Your task to perform on an android device: turn pop-ups on in chrome Image 0: 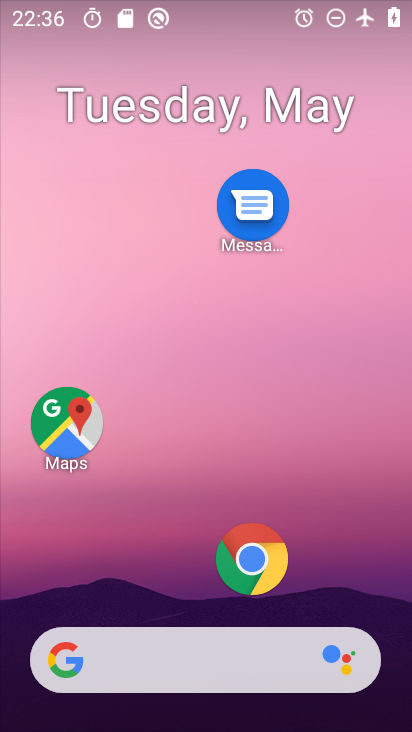
Step 0: click (242, 560)
Your task to perform on an android device: turn pop-ups on in chrome Image 1: 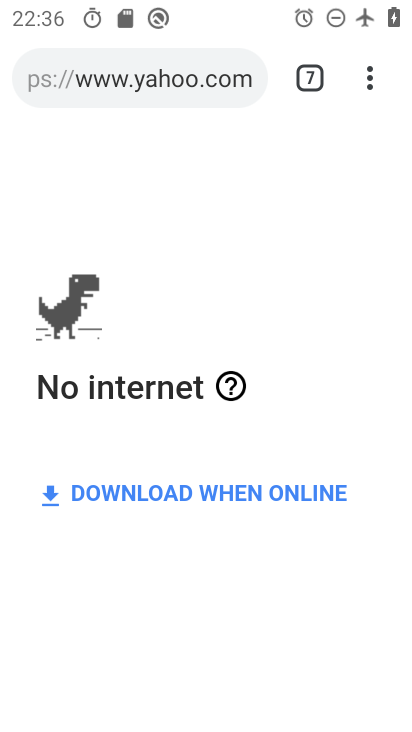
Step 1: drag from (367, 85) to (170, 630)
Your task to perform on an android device: turn pop-ups on in chrome Image 2: 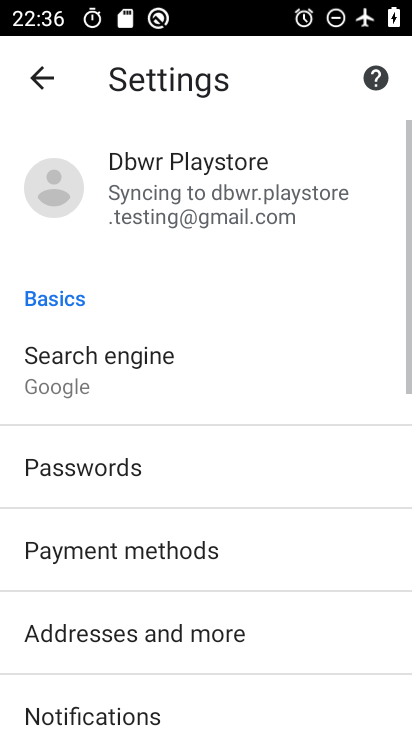
Step 2: drag from (209, 638) to (192, 212)
Your task to perform on an android device: turn pop-ups on in chrome Image 3: 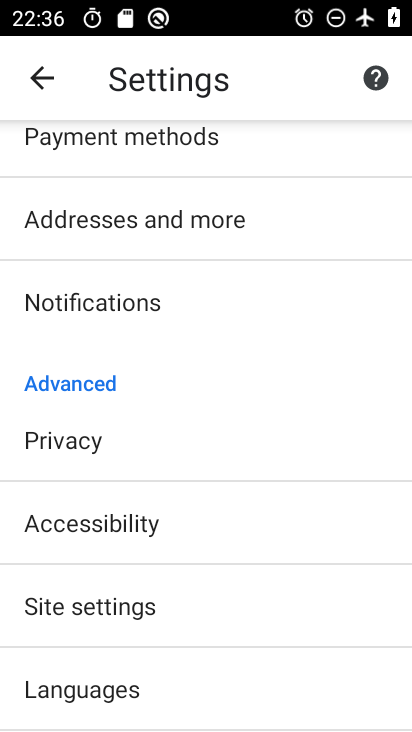
Step 3: click (164, 608)
Your task to perform on an android device: turn pop-ups on in chrome Image 4: 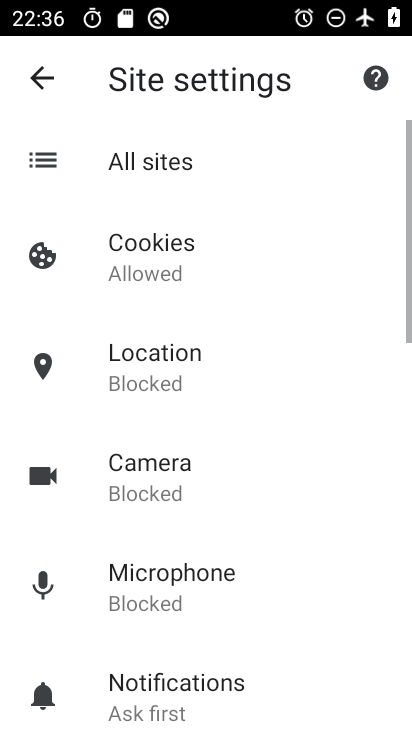
Step 4: drag from (173, 605) to (225, 218)
Your task to perform on an android device: turn pop-ups on in chrome Image 5: 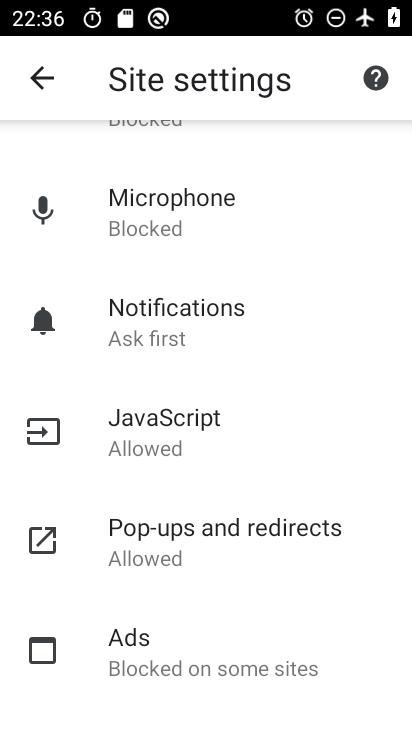
Step 5: click (243, 536)
Your task to perform on an android device: turn pop-ups on in chrome Image 6: 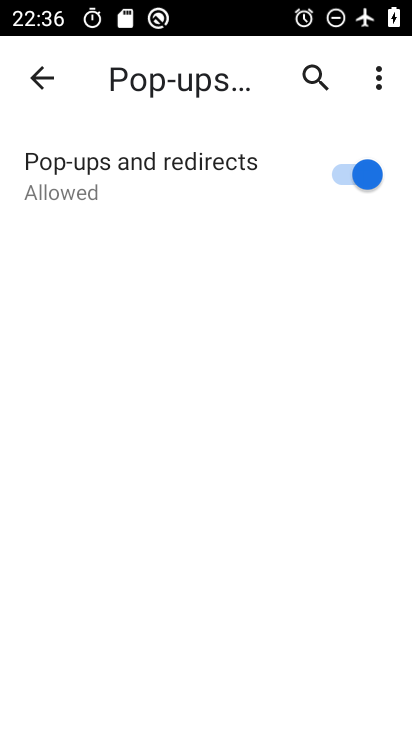
Step 6: task complete